Your task to perform on an android device: move a message to another label in the gmail app Image 0: 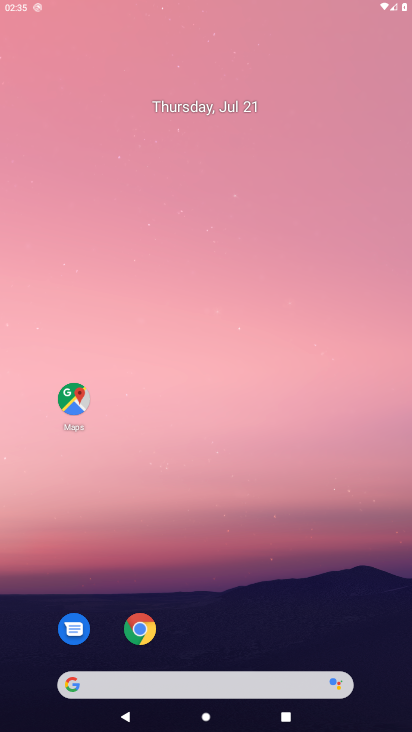
Step 0: click (74, 397)
Your task to perform on an android device: move a message to another label in the gmail app Image 1: 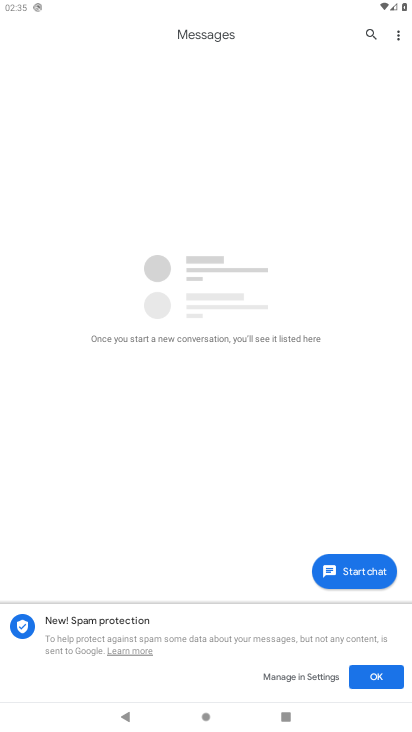
Step 1: press home button
Your task to perform on an android device: move a message to another label in the gmail app Image 2: 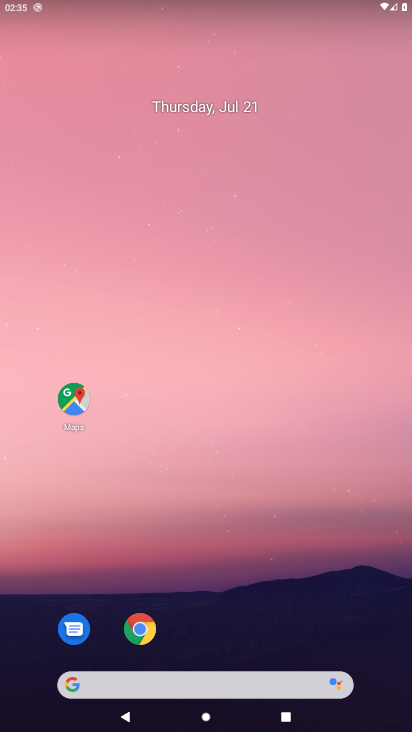
Step 2: drag from (111, 580) to (239, 175)
Your task to perform on an android device: move a message to another label in the gmail app Image 3: 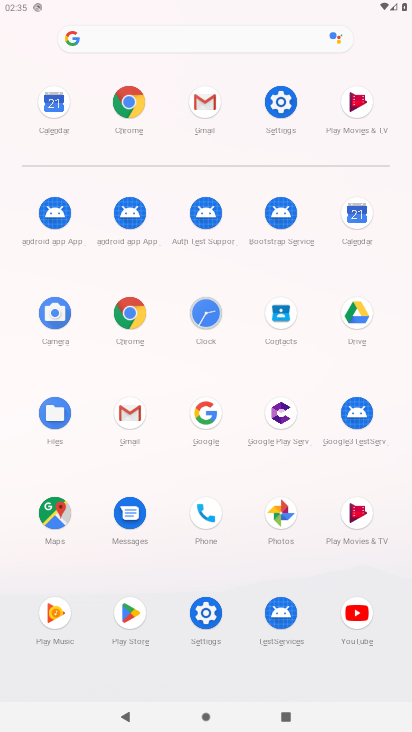
Step 3: click (117, 428)
Your task to perform on an android device: move a message to another label in the gmail app Image 4: 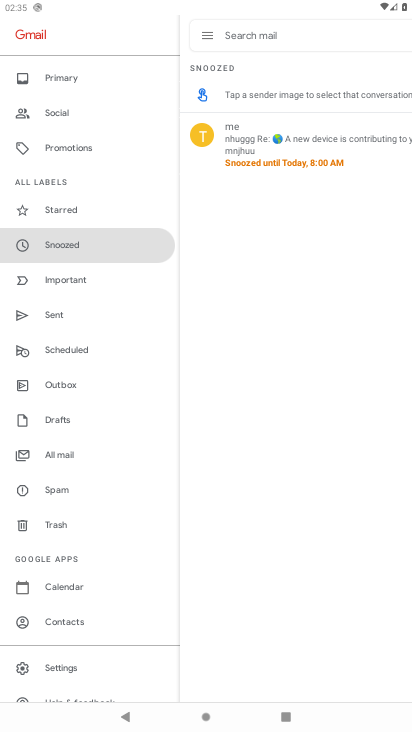
Step 4: click (72, 75)
Your task to perform on an android device: move a message to another label in the gmail app Image 5: 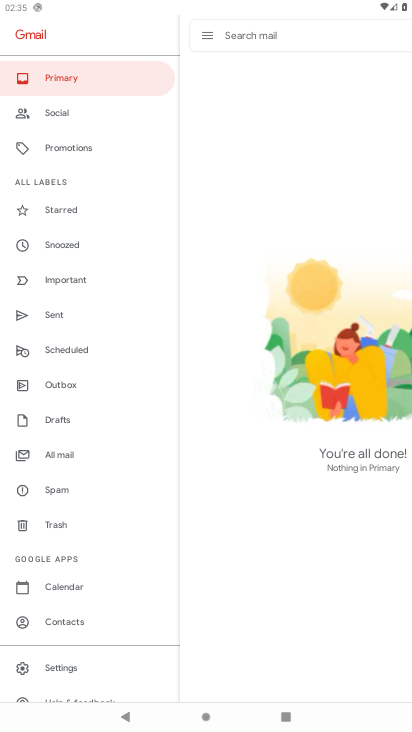
Step 5: task complete